Your task to perform on an android device: Show me popular videos on Youtube Image 0: 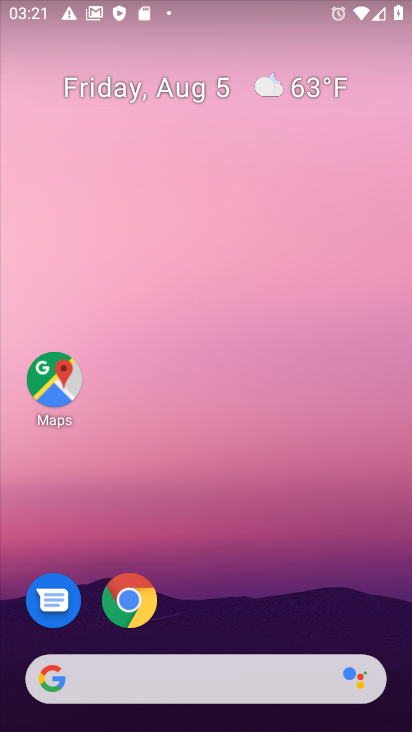
Step 0: drag from (177, 687) to (270, 126)
Your task to perform on an android device: Show me popular videos on Youtube Image 1: 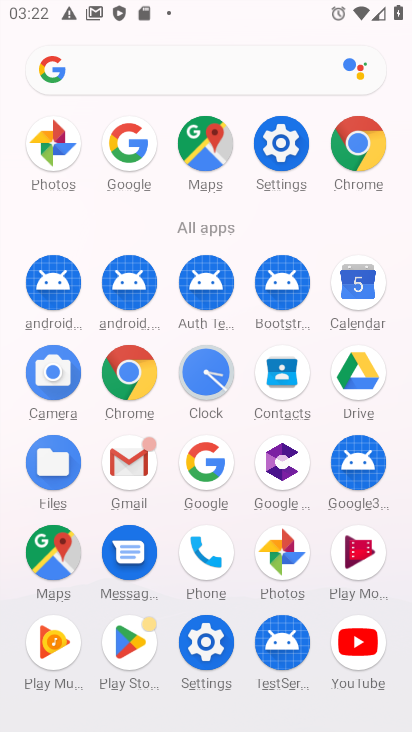
Step 1: click (358, 643)
Your task to perform on an android device: Show me popular videos on Youtube Image 2: 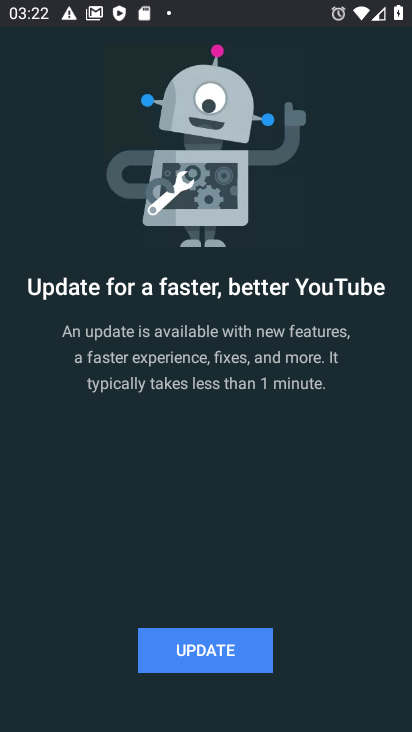
Step 2: click (204, 647)
Your task to perform on an android device: Show me popular videos on Youtube Image 3: 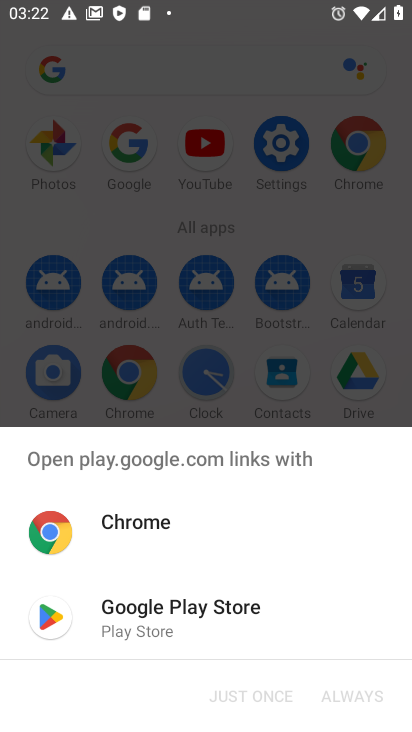
Step 3: click (194, 618)
Your task to perform on an android device: Show me popular videos on Youtube Image 4: 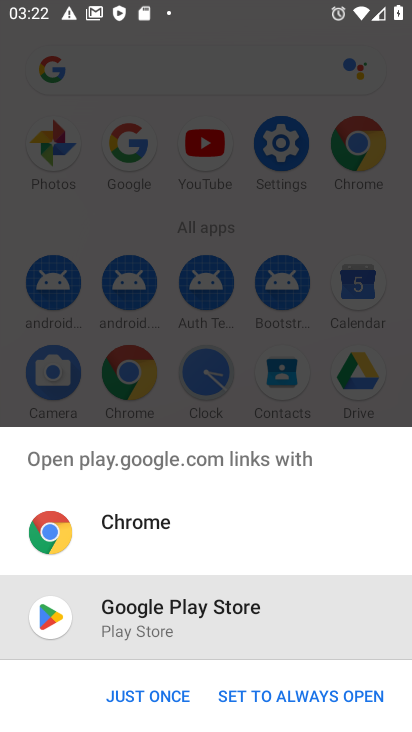
Step 4: click (169, 698)
Your task to perform on an android device: Show me popular videos on Youtube Image 5: 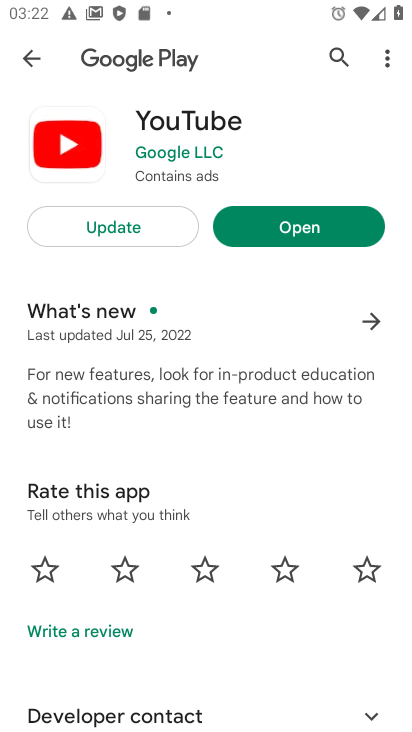
Step 5: click (124, 230)
Your task to perform on an android device: Show me popular videos on Youtube Image 6: 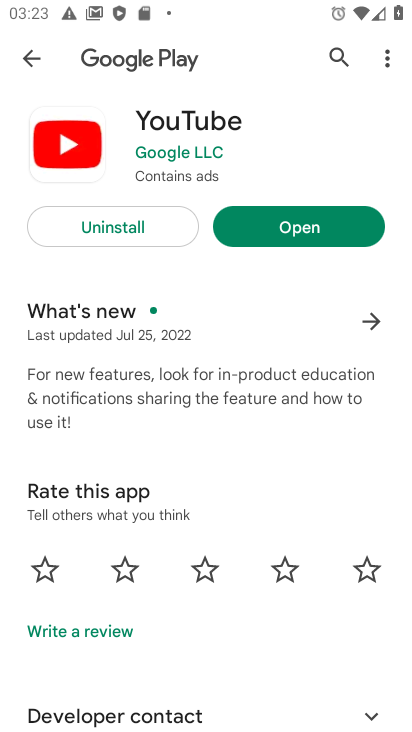
Step 6: click (305, 223)
Your task to perform on an android device: Show me popular videos on Youtube Image 7: 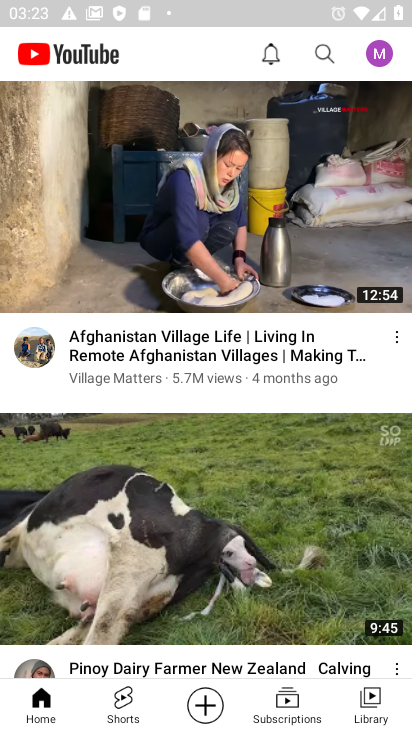
Step 7: click (324, 53)
Your task to perform on an android device: Show me popular videos on Youtube Image 8: 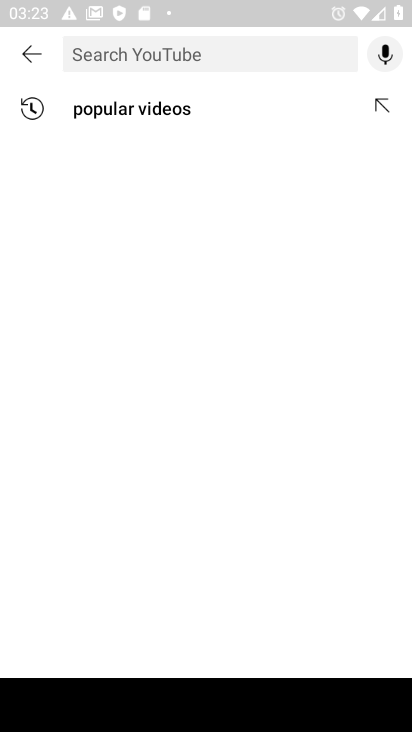
Step 8: click (112, 115)
Your task to perform on an android device: Show me popular videos on Youtube Image 9: 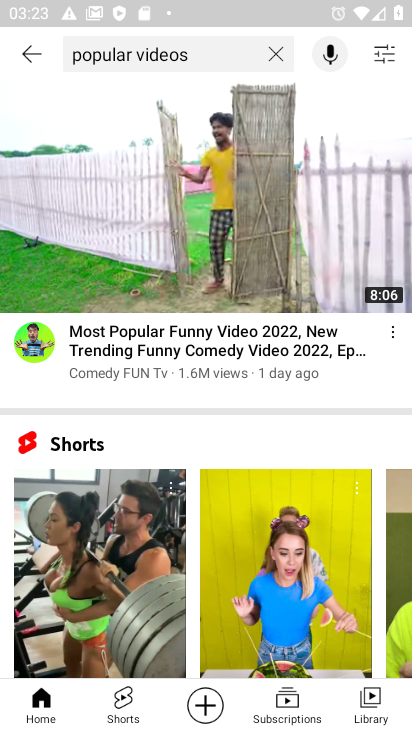
Step 9: task complete